Your task to perform on an android device: find snoozed emails in the gmail app Image 0: 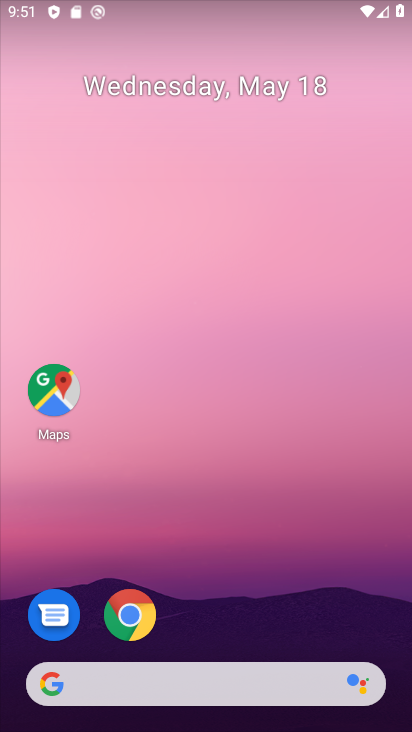
Step 0: drag from (205, 664) to (224, 244)
Your task to perform on an android device: find snoozed emails in the gmail app Image 1: 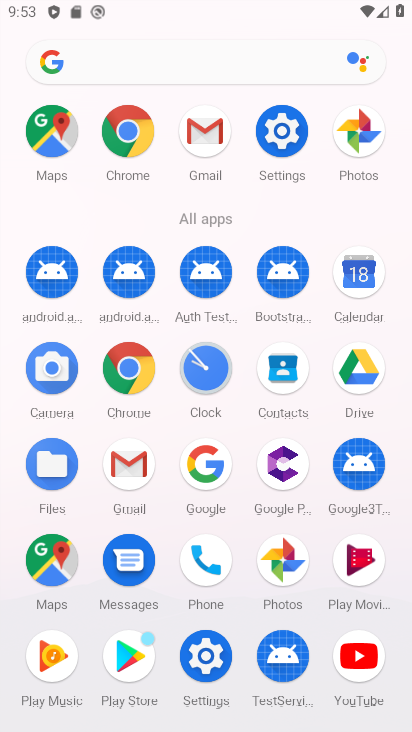
Step 1: click (220, 120)
Your task to perform on an android device: find snoozed emails in the gmail app Image 2: 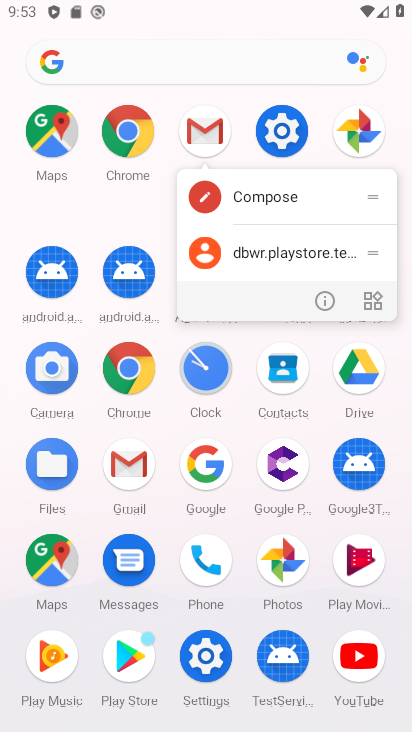
Step 2: click (215, 127)
Your task to perform on an android device: find snoozed emails in the gmail app Image 3: 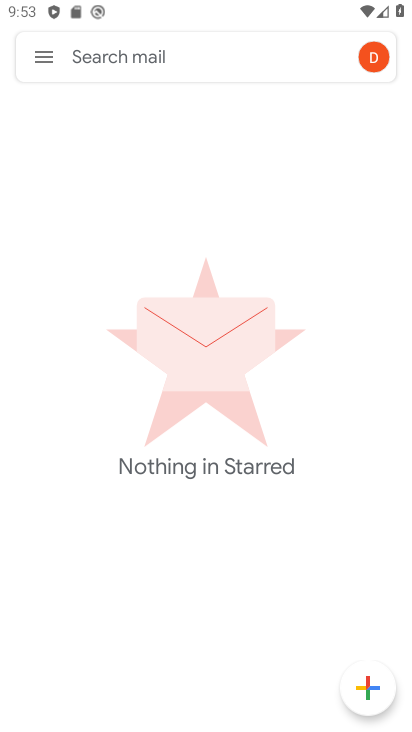
Step 3: click (41, 67)
Your task to perform on an android device: find snoozed emails in the gmail app Image 4: 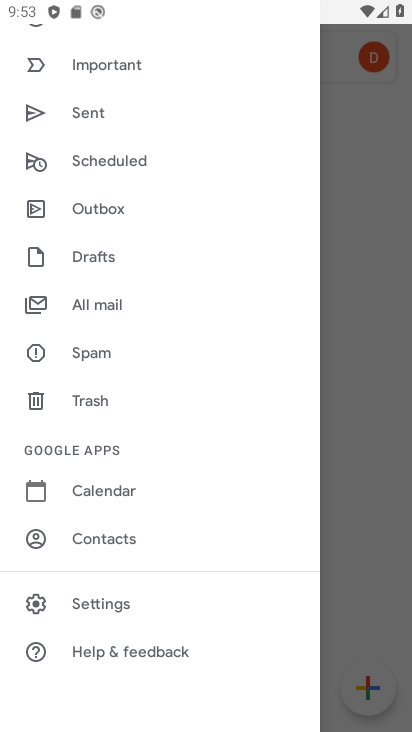
Step 4: click (117, 604)
Your task to perform on an android device: find snoozed emails in the gmail app Image 5: 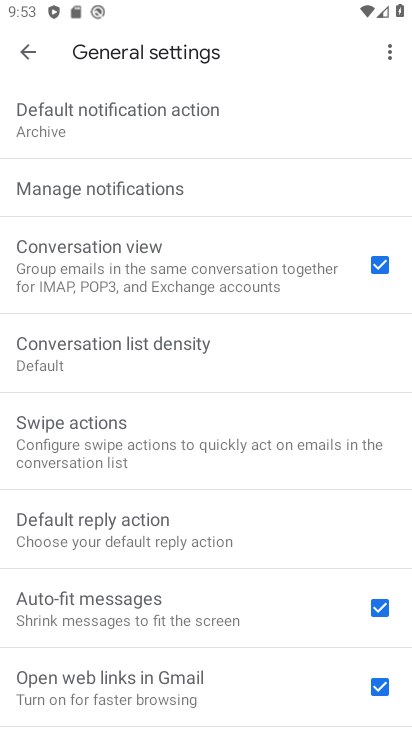
Step 5: click (21, 48)
Your task to perform on an android device: find snoozed emails in the gmail app Image 6: 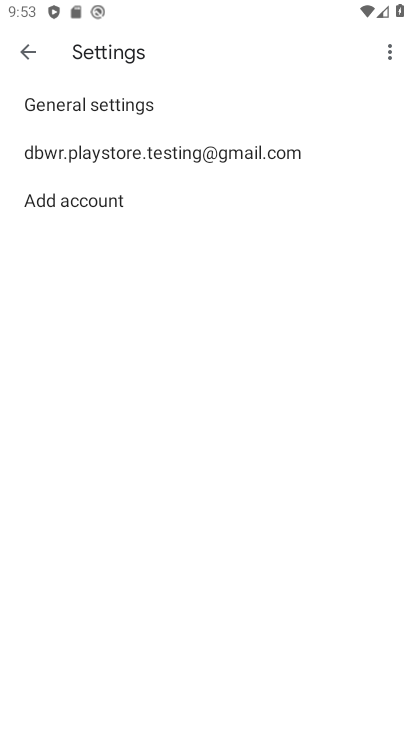
Step 6: click (27, 51)
Your task to perform on an android device: find snoozed emails in the gmail app Image 7: 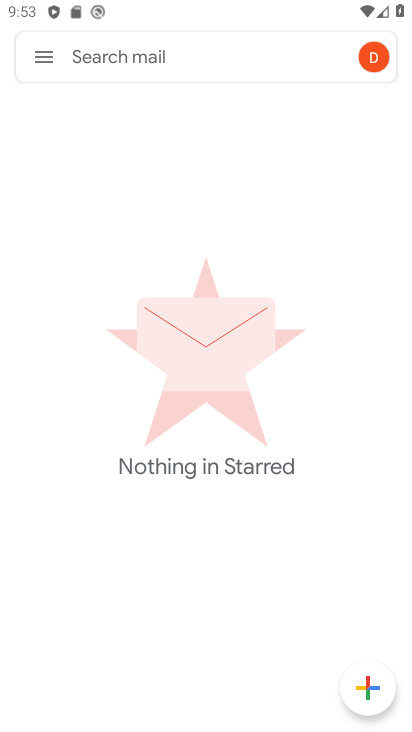
Step 7: click (45, 52)
Your task to perform on an android device: find snoozed emails in the gmail app Image 8: 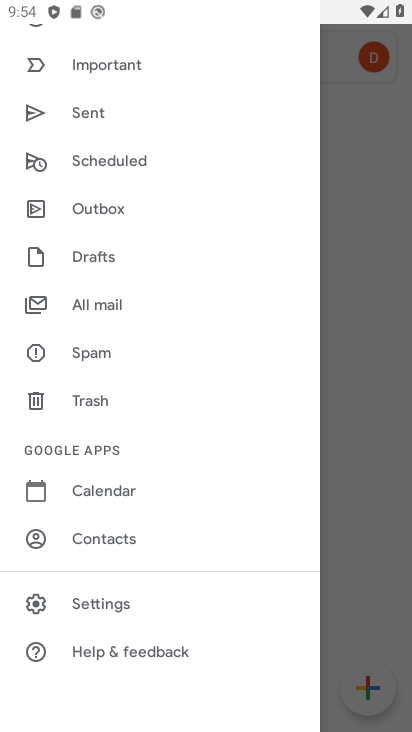
Step 8: drag from (115, 69) to (124, 439)
Your task to perform on an android device: find snoozed emails in the gmail app Image 9: 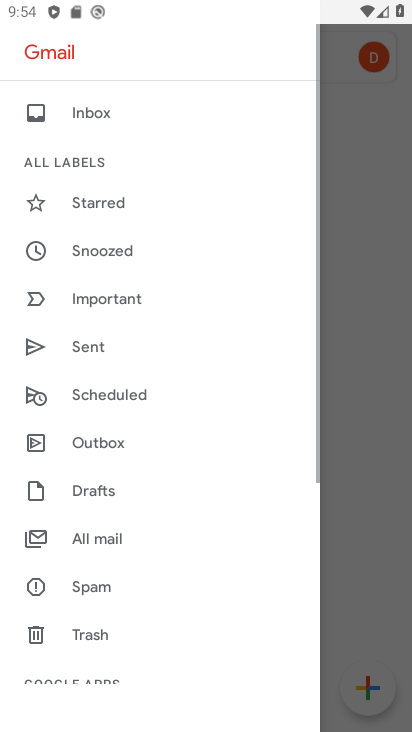
Step 9: click (118, 250)
Your task to perform on an android device: find snoozed emails in the gmail app Image 10: 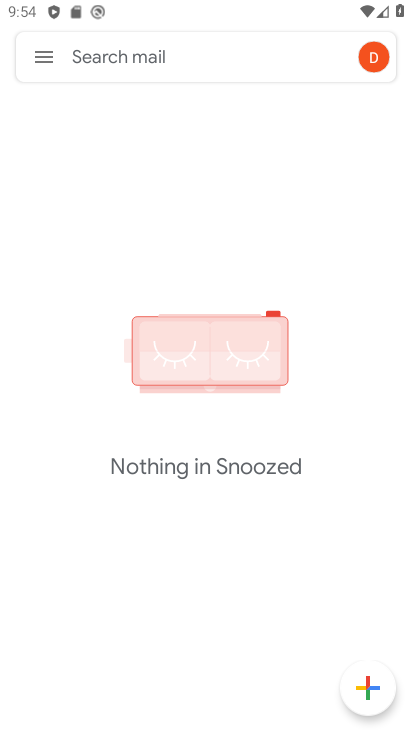
Step 10: task complete